Your task to perform on an android device: Open the map Image 0: 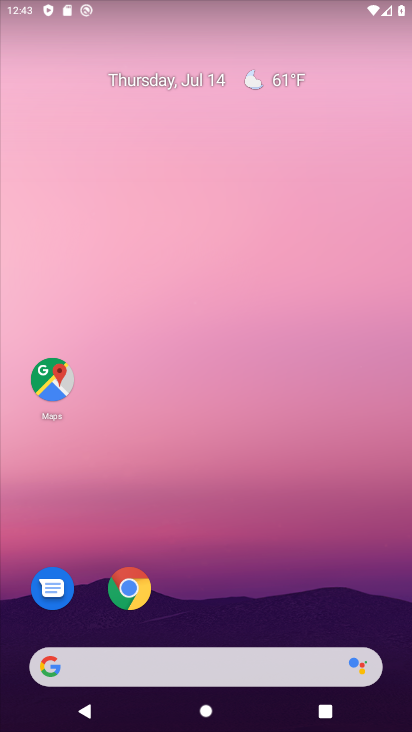
Step 0: click (62, 371)
Your task to perform on an android device: Open the map Image 1: 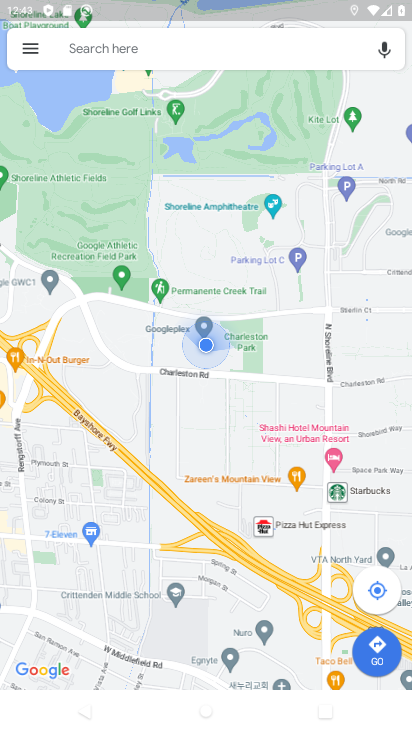
Step 1: task complete